Your task to perform on an android device: Go to Yahoo.com Image 0: 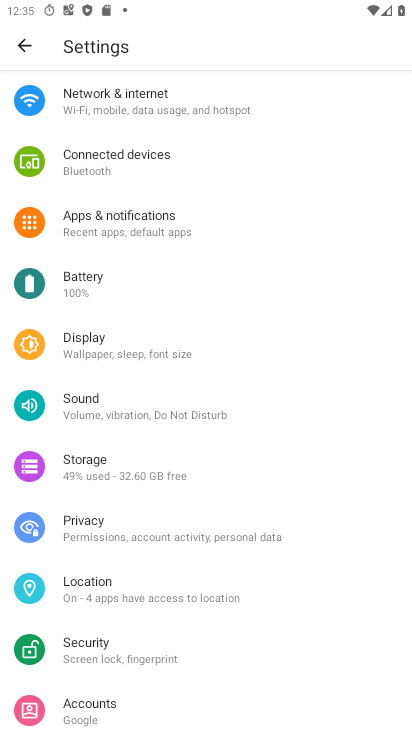
Step 0: press home button
Your task to perform on an android device: Go to Yahoo.com Image 1: 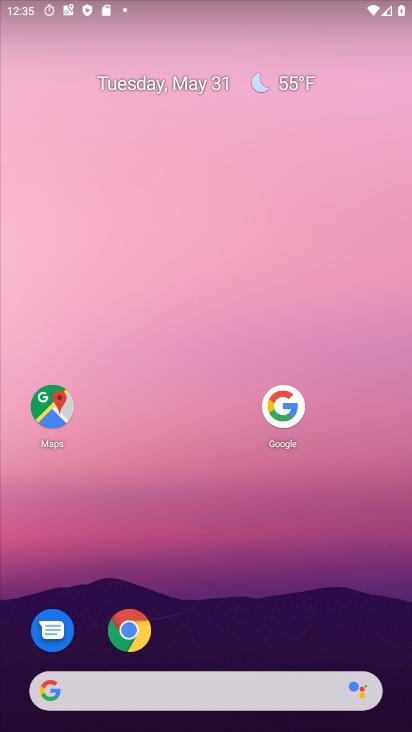
Step 1: click (125, 622)
Your task to perform on an android device: Go to Yahoo.com Image 2: 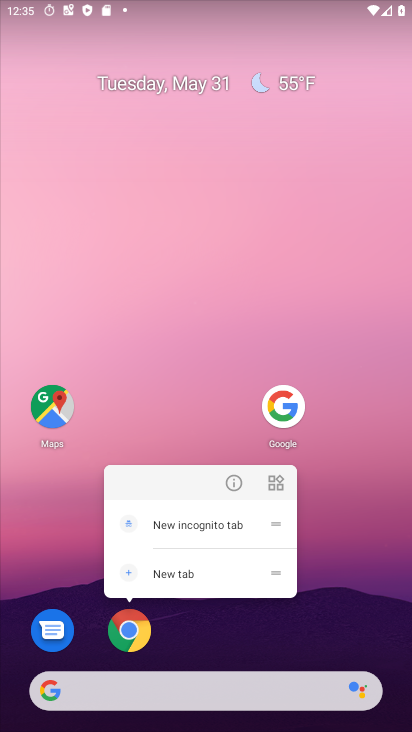
Step 2: click (134, 636)
Your task to perform on an android device: Go to Yahoo.com Image 3: 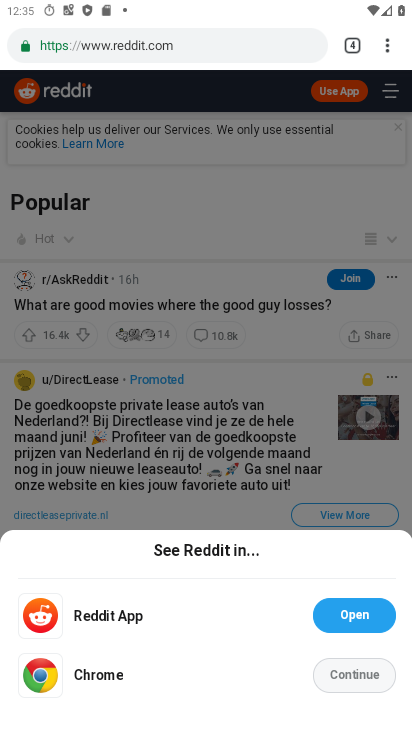
Step 3: drag from (386, 51) to (242, 155)
Your task to perform on an android device: Go to Yahoo.com Image 4: 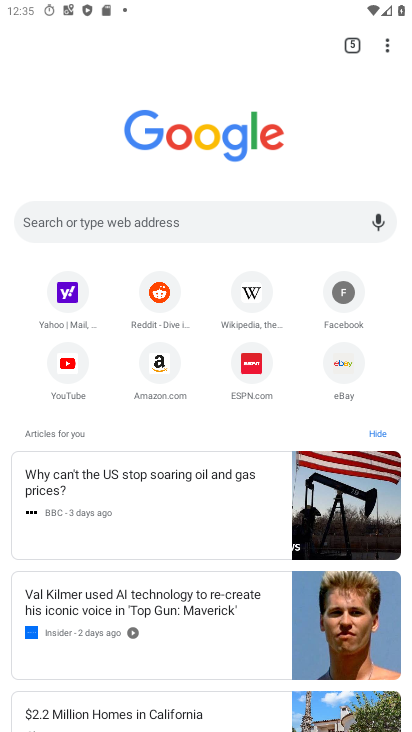
Step 4: click (62, 288)
Your task to perform on an android device: Go to Yahoo.com Image 5: 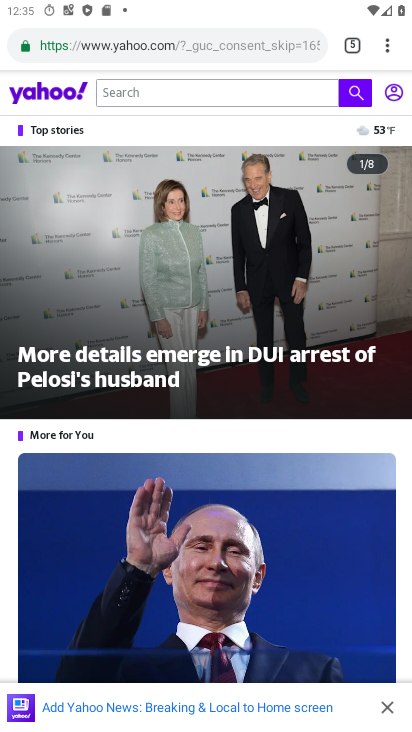
Step 5: task complete